Your task to perform on an android device: toggle improve location accuracy Image 0: 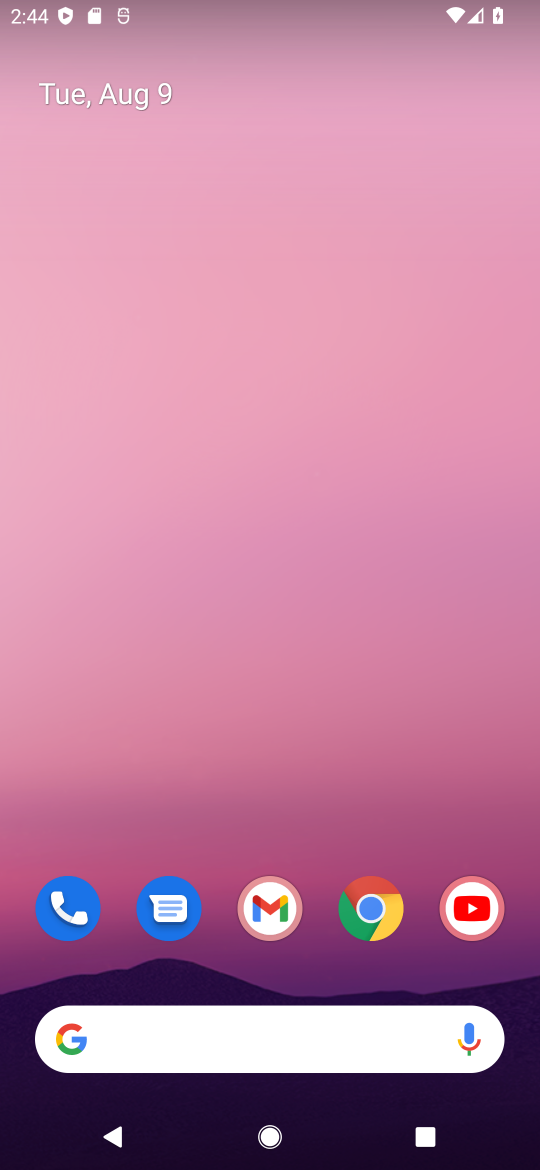
Step 0: click (272, 357)
Your task to perform on an android device: toggle improve location accuracy Image 1: 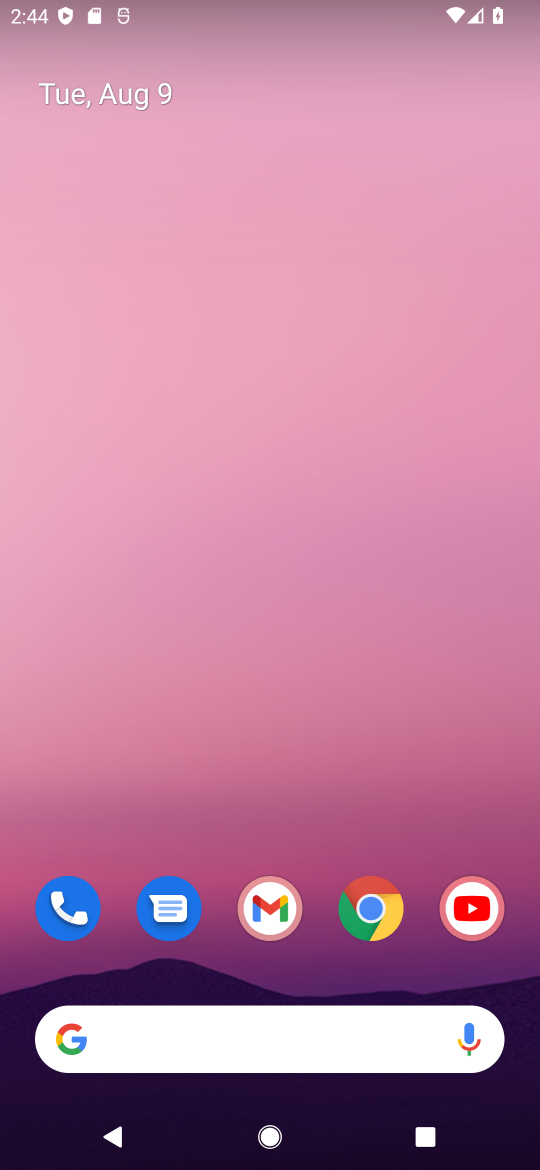
Step 1: drag from (346, 893) to (266, 368)
Your task to perform on an android device: toggle improve location accuracy Image 2: 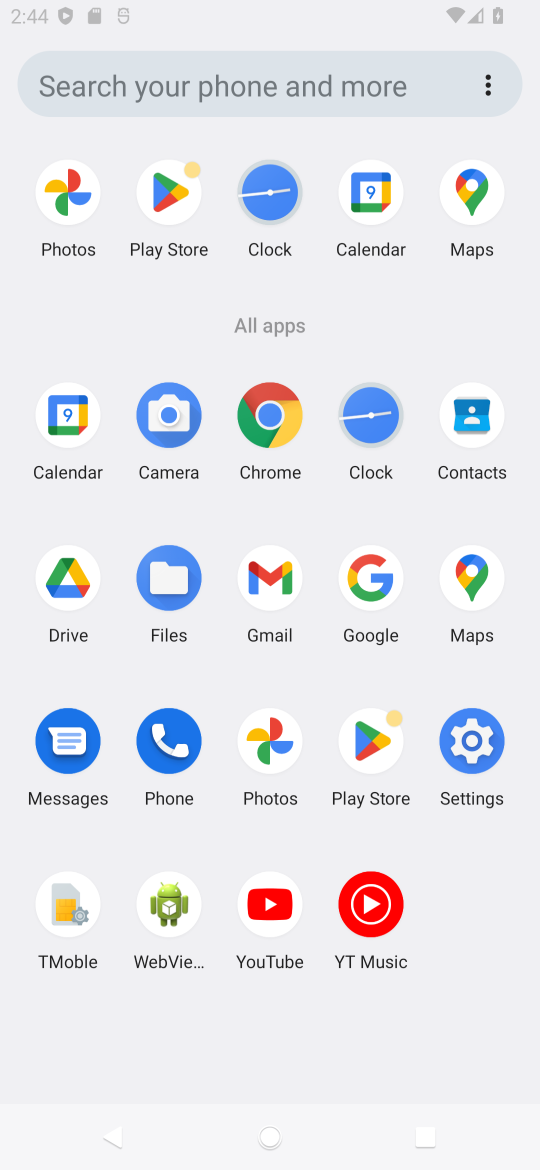
Step 2: drag from (334, 987) to (334, 97)
Your task to perform on an android device: toggle improve location accuracy Image 3: 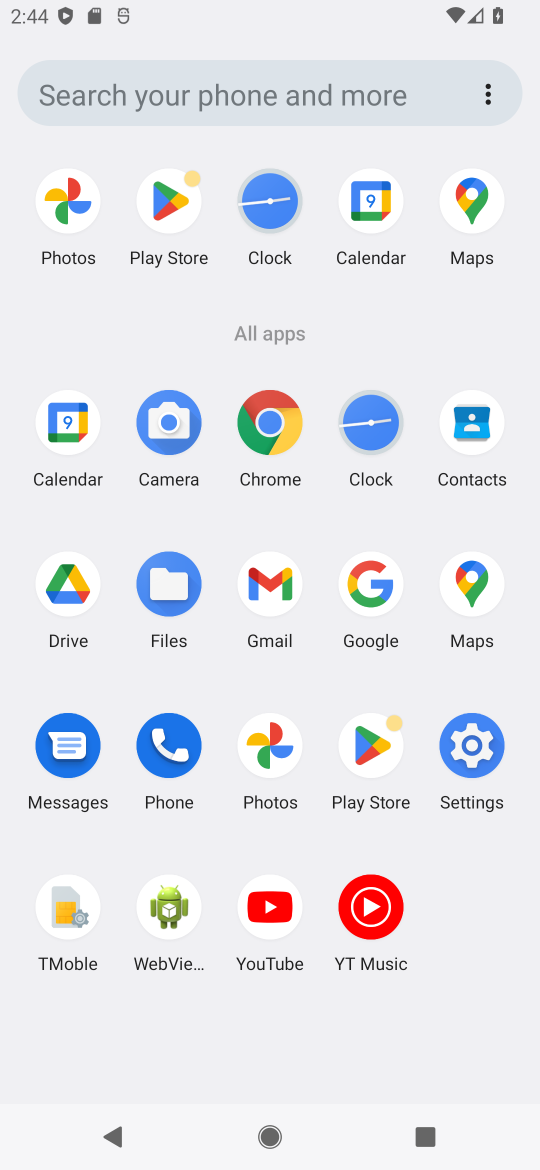
Step 3: click (481, 740)
Your task to perform on an android device: toggle improve location accuracy Image 4: 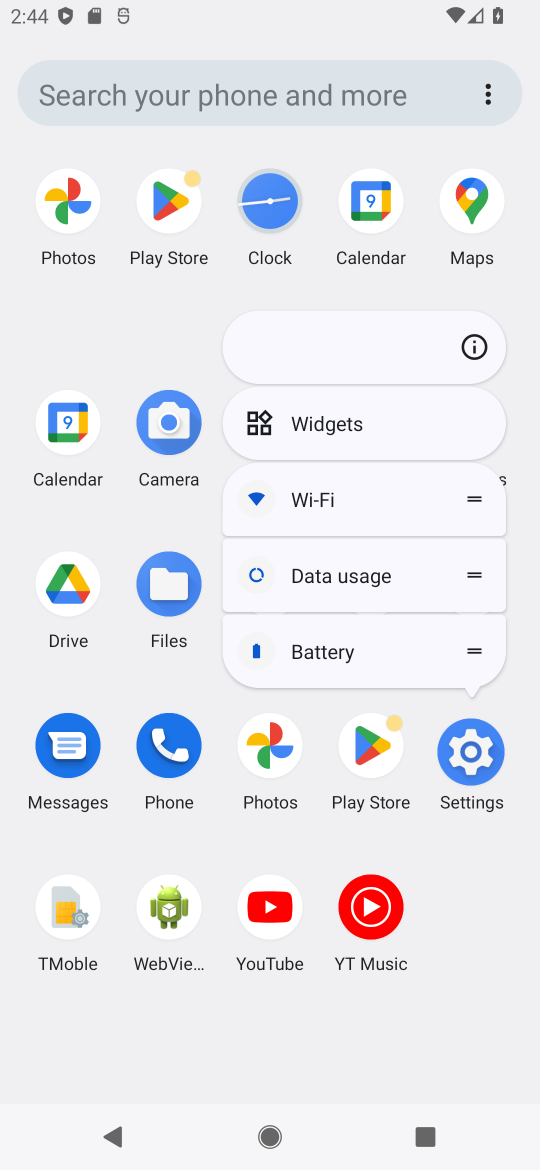
Step 4: click (477, 763)
Your task to perform on an android device: toggle improve location accuracy Image 5: 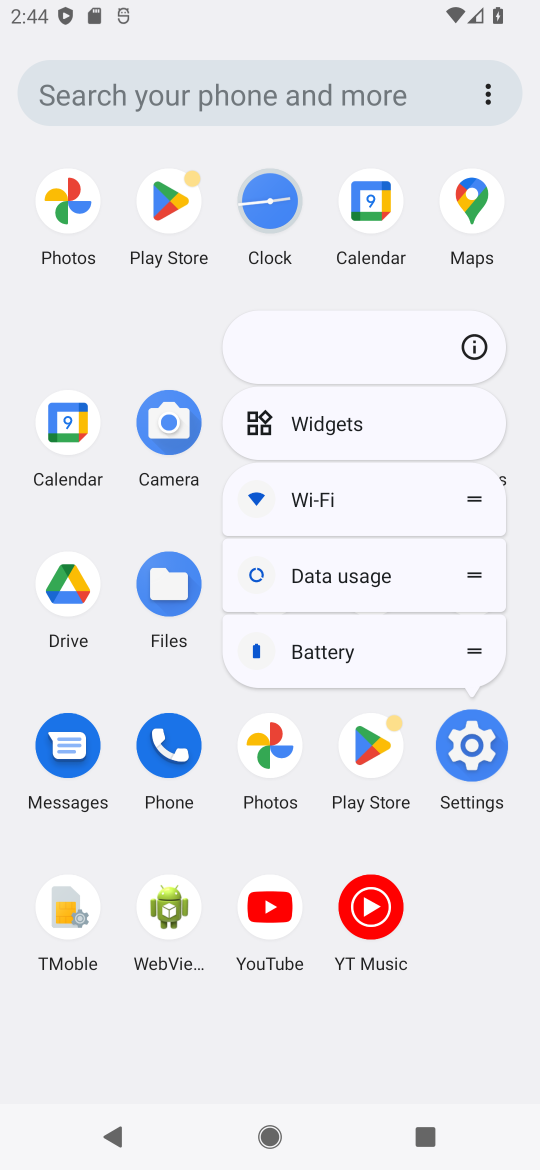
Step 5: click (468, 752)
Your task to perform on an android device: toggle improve location accuracy Image 6: 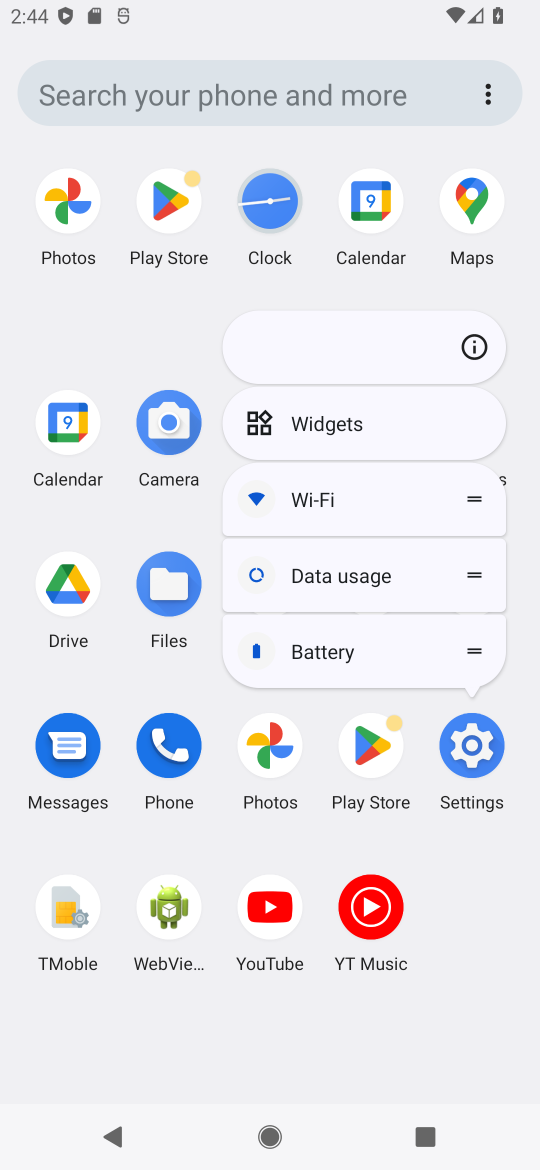
Step 6: click (468, 750)
Your task to perform on an android device: toggle improve location accuracy Image 7: 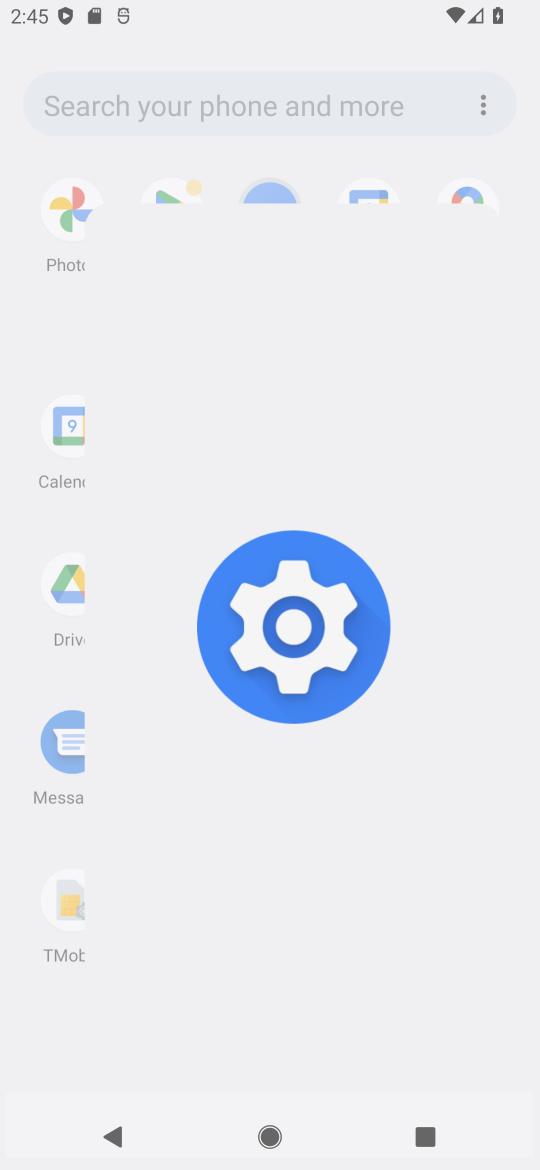
Step 7: click (468, 750)
Your task to perform on an android device: toggle improve location accuracy Image 8: 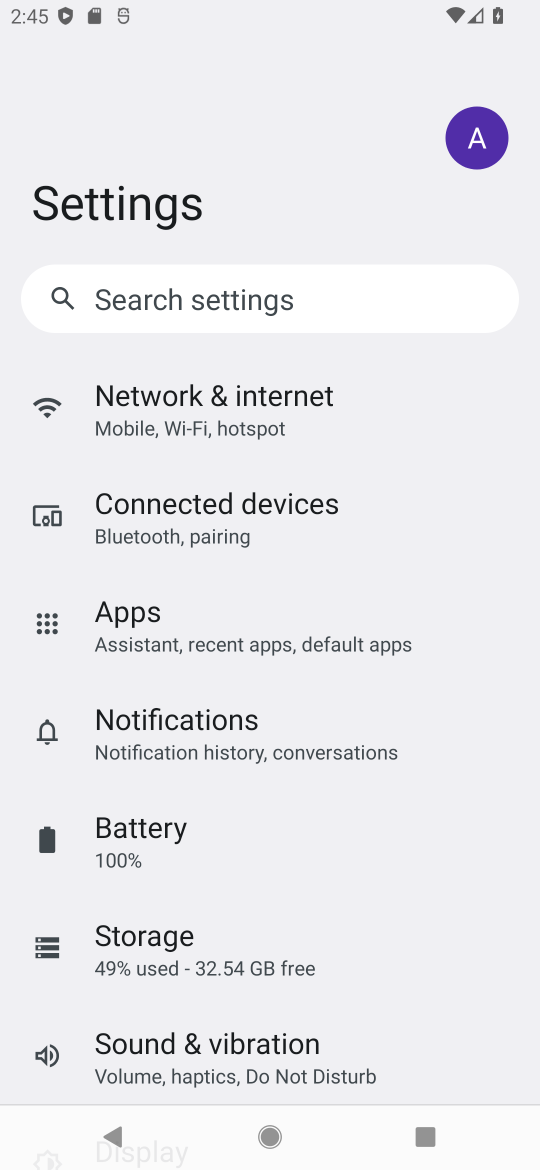
Step 8: drag from (251, 951) to (296, 405)
Your task to perform on an android device: toggle improve location accuracy Image 9: 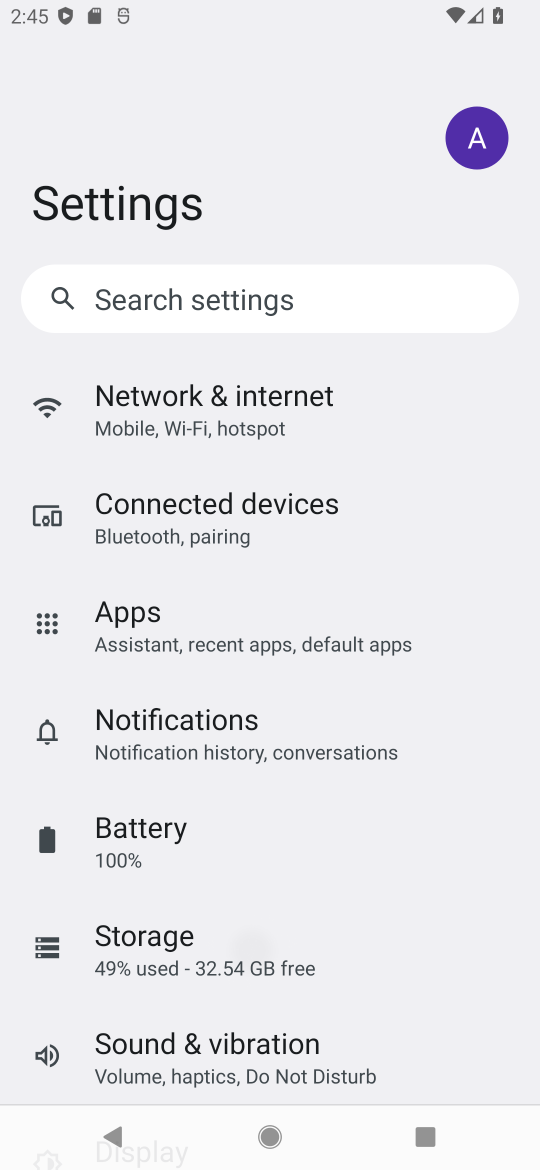
Step 9: drag from (356, 990) to (356, 359)
Your task to perform on an android device: toggle improve location accuracy Image 10: 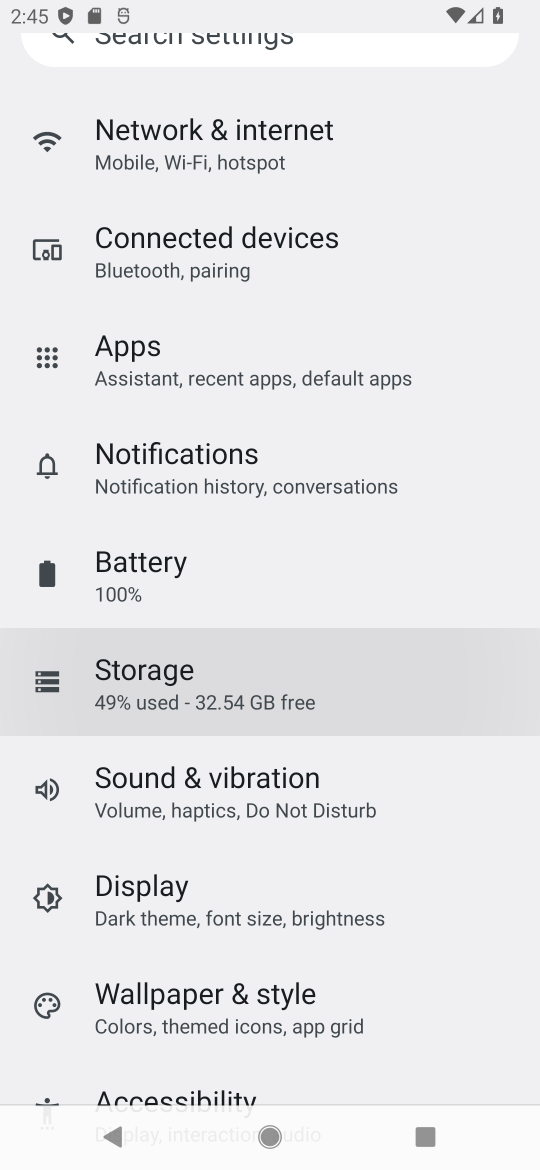
Step 10: drag from (270, 779) to (245, 465)
Your task to perform on an android device: toggle improve location accuracy Image 11: 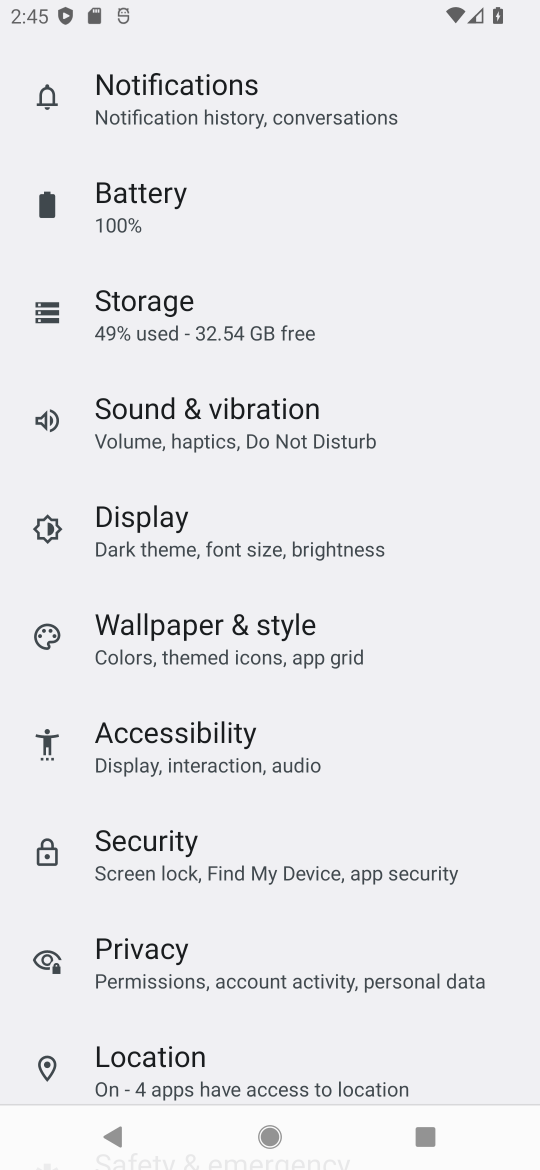
Step 11: click (166, 1056)
Your task to perform on an android device: toggle improve location accuracy Image 12: 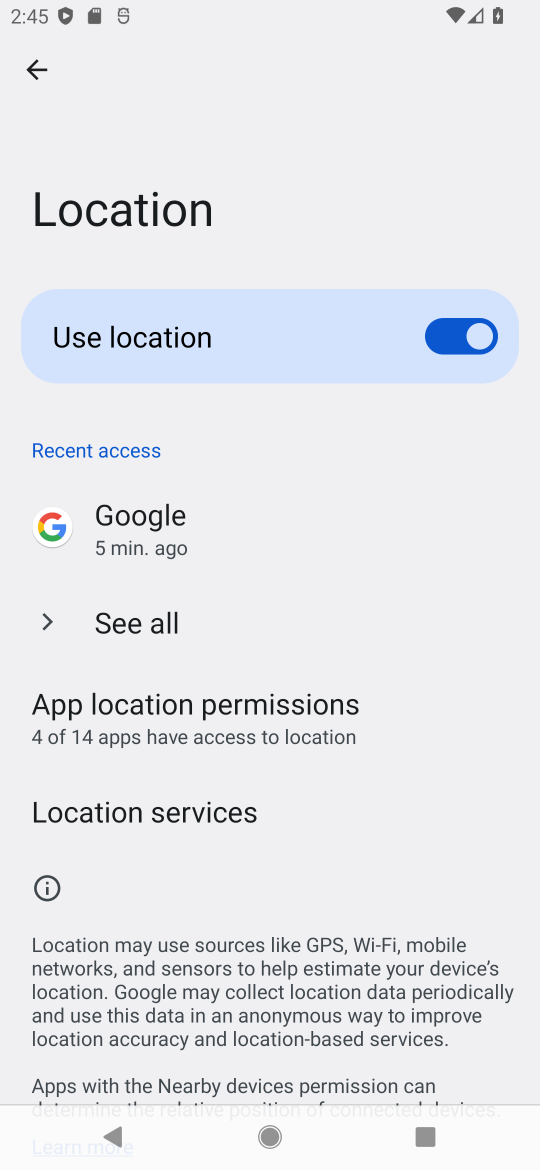
Step 12: click (165, 1057)
Your task to perform on an android device: toggle improve location accuracy Image 13: 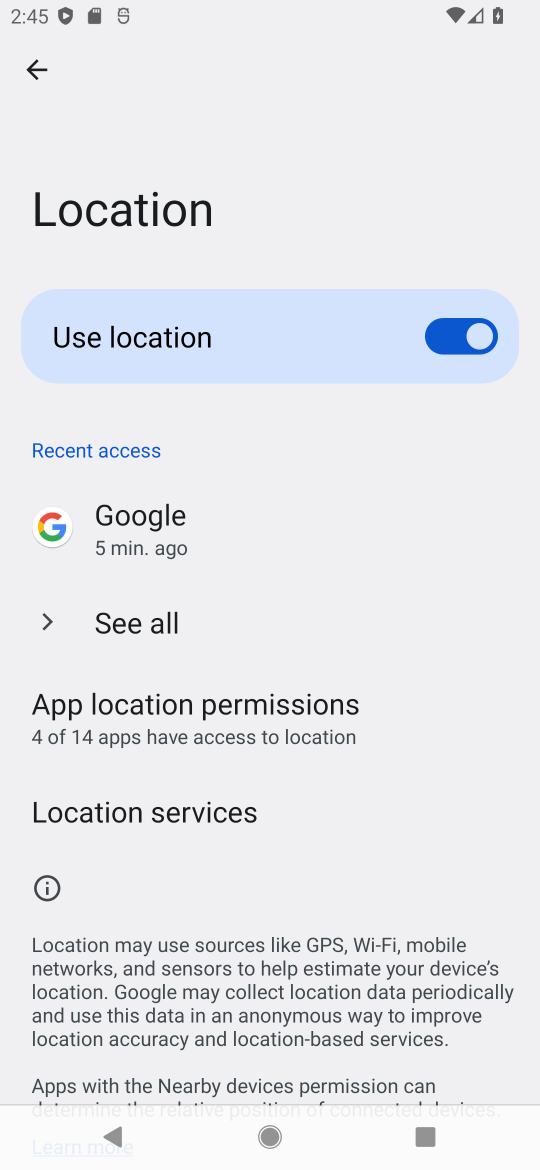
Step 13: click (163, 1059)
Your task to perform on an android device: toggle improve location accuracy Image 14: 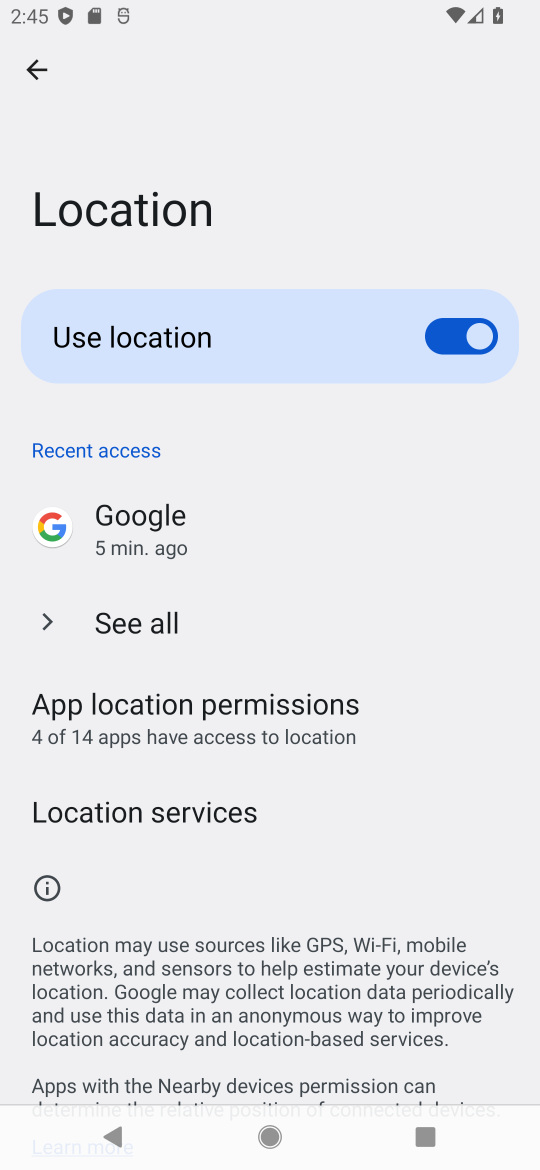
Step 14: click (152, 813)
Your task to perform on an android device: toggle improve location accuracy Image 15: 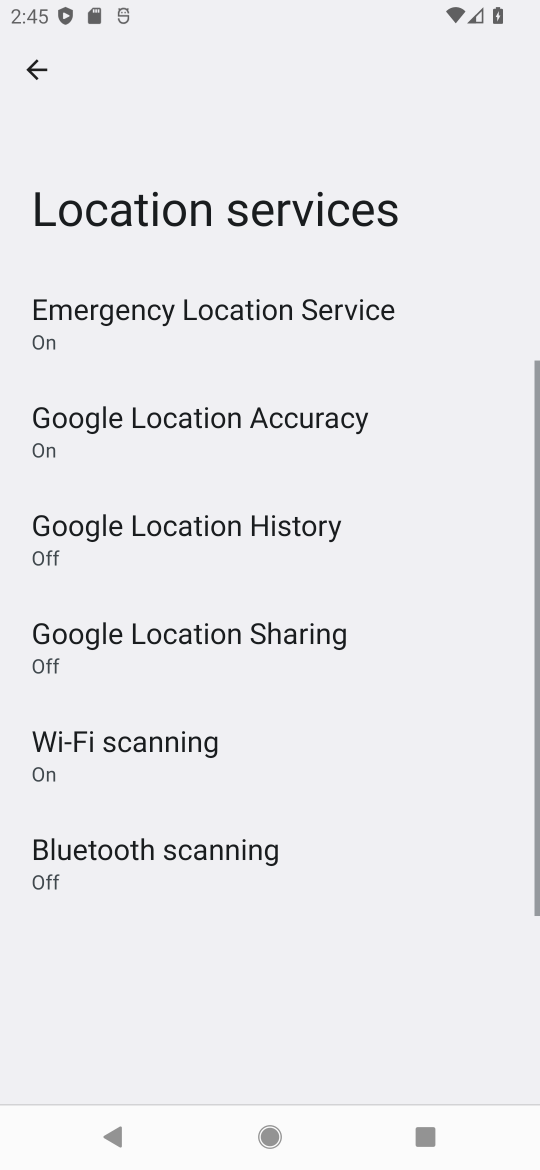
Step 15: click (219, 427)
Your task to perform on an android device: toggle improve location accuracy Image 16: 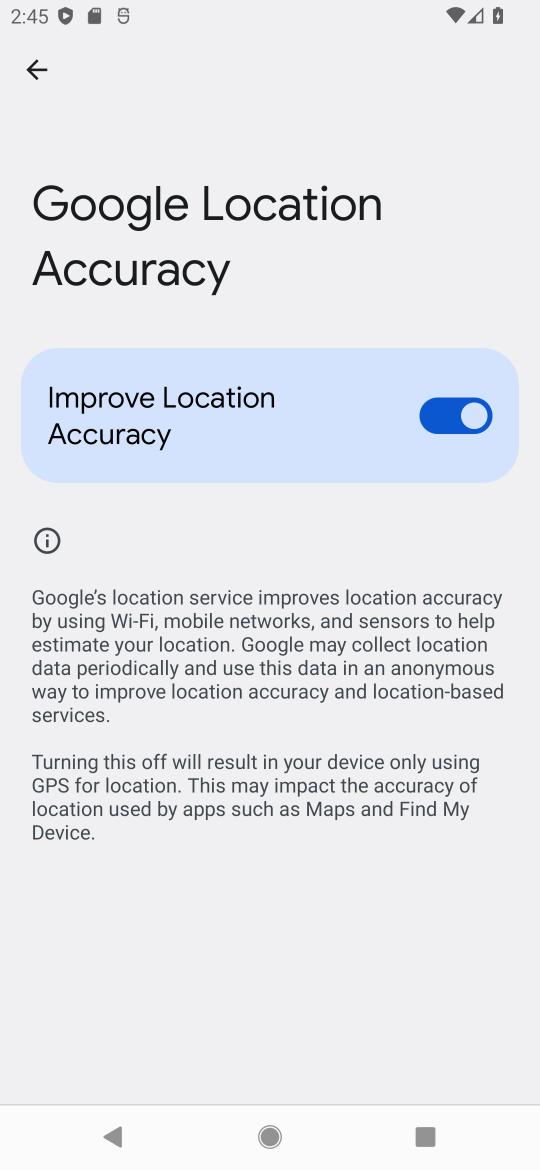
Step 16: click (463, 417)
Your task to perform on an android device: toggle improve location accuracy Image 17: 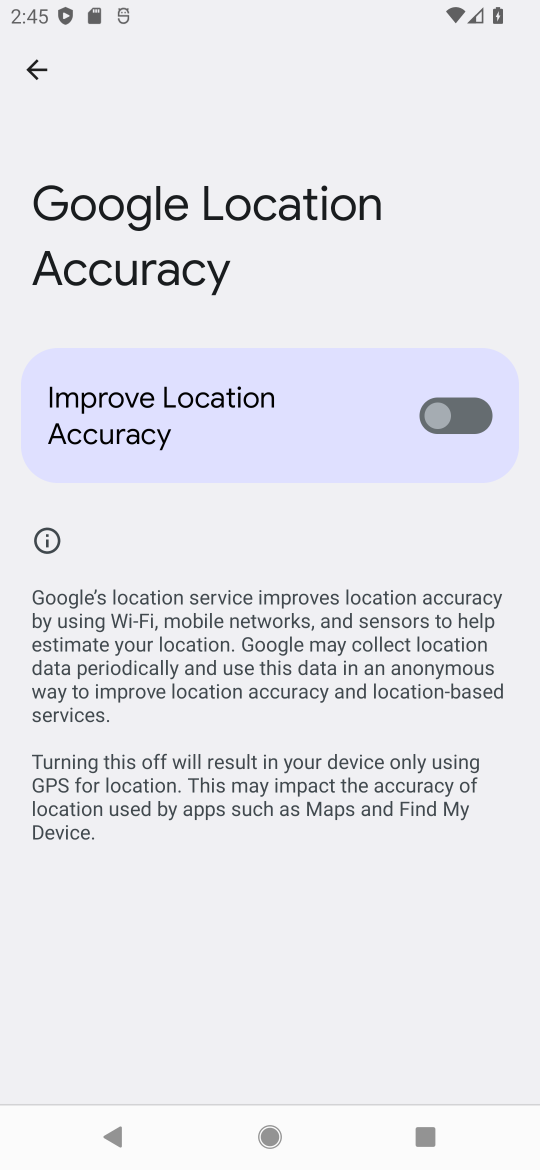
Step 17: task complete